Your task to perform on an android device: Open location settings Image 0: 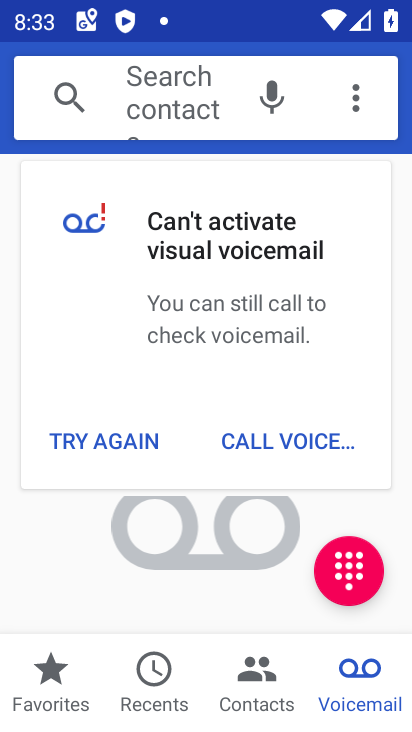
Step 0: press home button
Your task to perform on an android device: Open location settings Image 1: 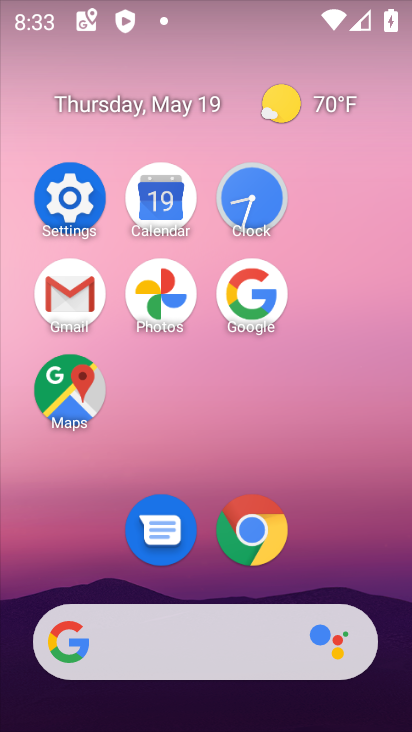
Step 1: click (59, 203)
Your task to perform on an android device: Open location settings Image 2: 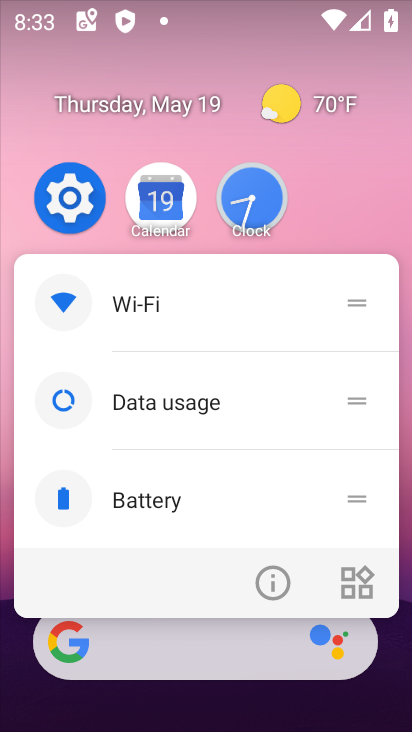
Step 2: click (58, 205)
Your task to perform on an android device: Open location settings Image 3: 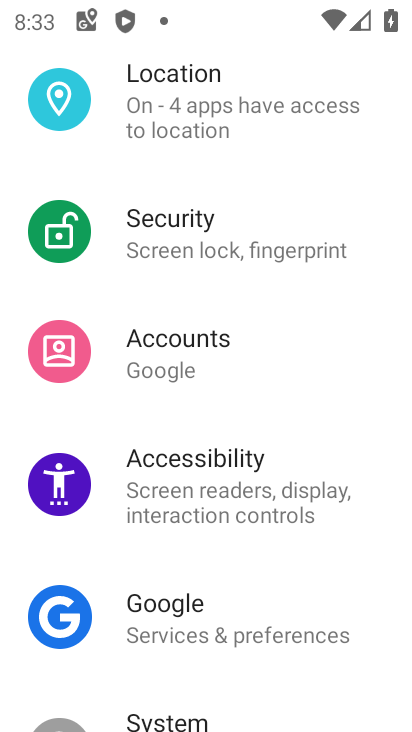
Step 3: click (232, 91)
Your task to perform on an android device: Open location settings Image 4: 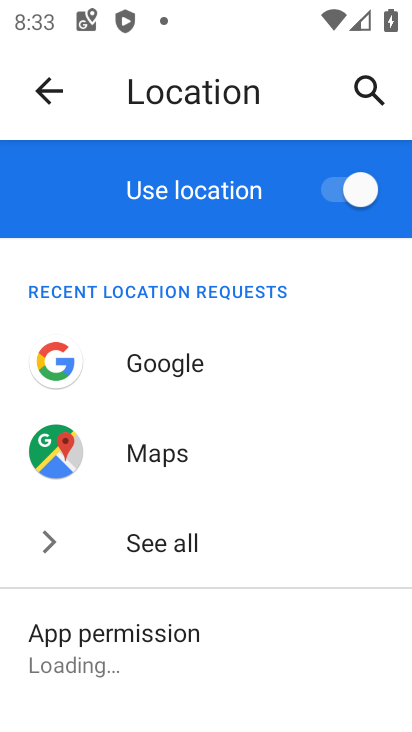
Step 4: task complete